Your task to perform on an android device: Open Maps and search for coffee Image 0: 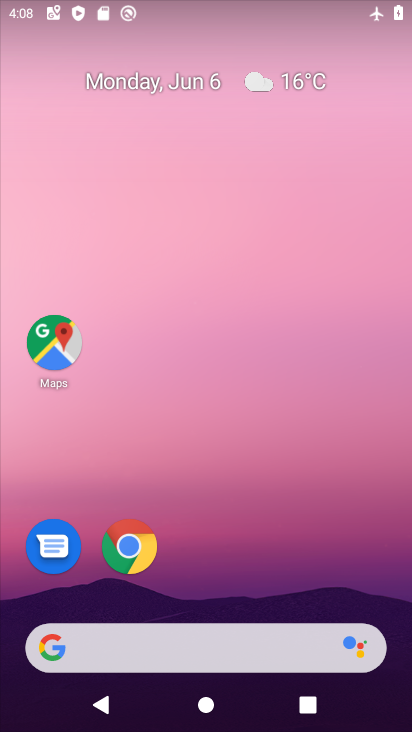
Step 0: drag from (260, 546) to (320, 0)
Your task to perform on an android device: Open Maps and search for coffee Image 1: 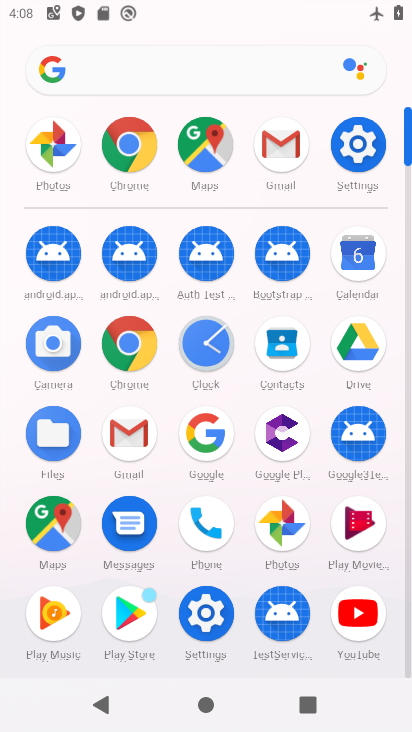
Step 1: click (217, 160)
Your task to perform on an android device: Open Maps and search for coffee Image 2: 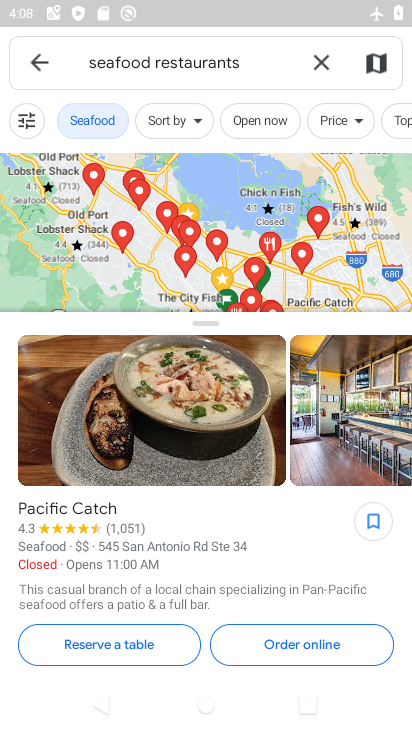
Step 2: click (325, 64)
Your task to perform on an android device: Open Maps and search for coffee Image 3: 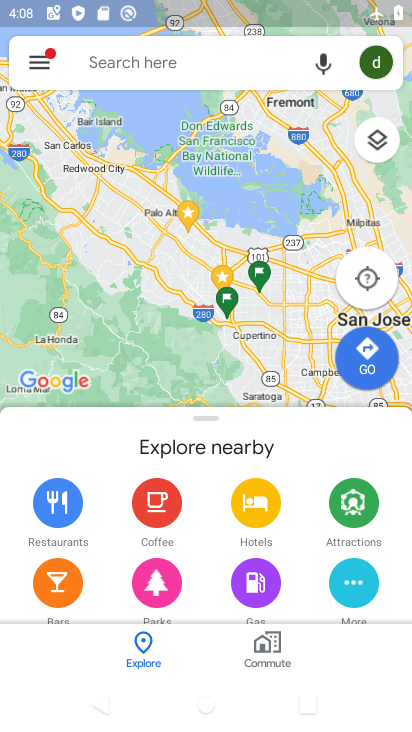
Step 3: click (139, 64)
Your task to perform on an android device: Open Maps and search for coffee Image 4: 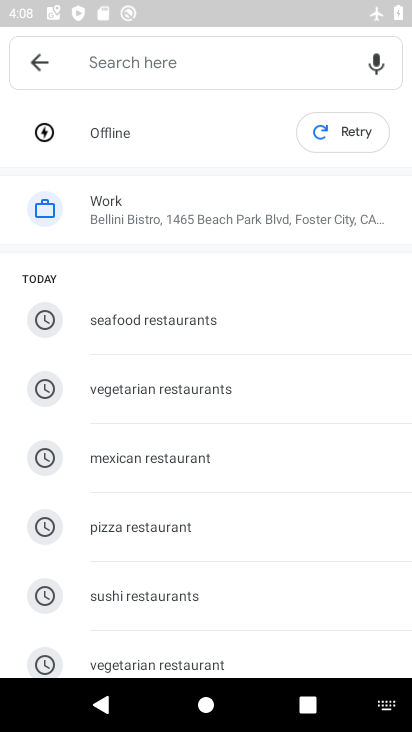
Step 4: type "coffee"
Your task to perform on an android device: Open Maps and search for coffee Image 5: 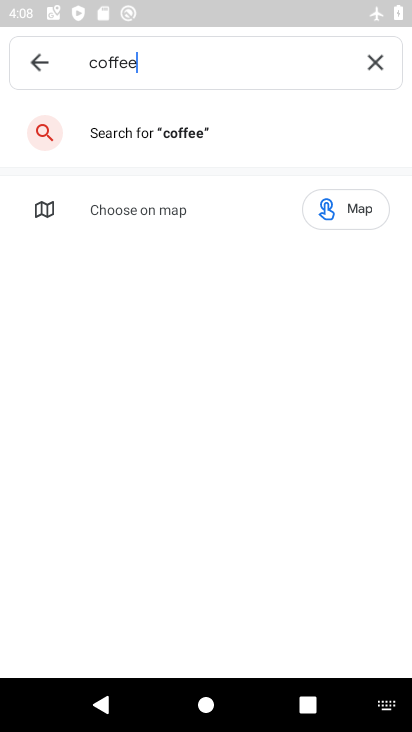
Step 5: click (152, 141)
Your task to perform on an android device: Open Maps and search for coffee Image 6: 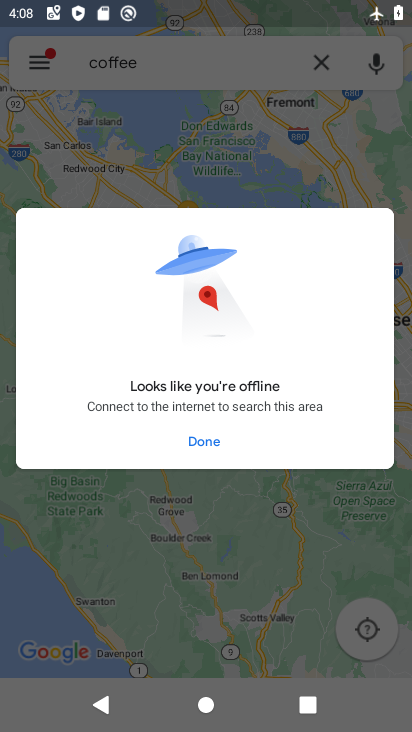
Step 6: task complete